Your task to perform on an android device: toggle priority inbox in the gmail app Image 0: 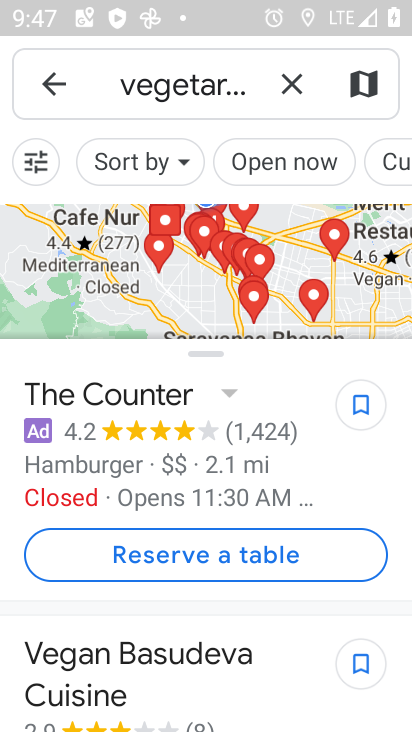
Step 0: press home button
Your task to perform on an android device: toggle priority inbox in the gmail app Image 1: 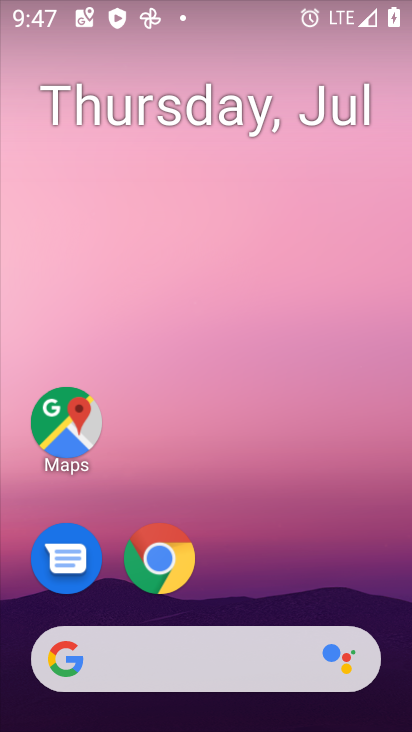
Step 1: drag from (363, 551) to (336, 41)
Your task to perform on an android device: toggle priority inbox in the gmail app Image 2: 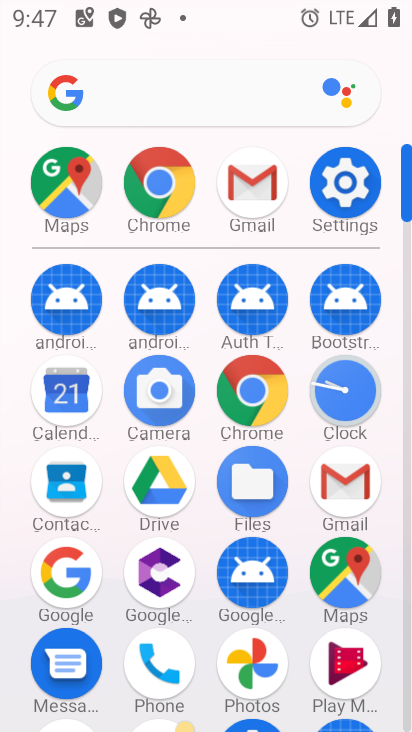
Step 2: click (334, 476)
Your task to perform on an android device: toggle priority inbox in the gmail app Image 3: 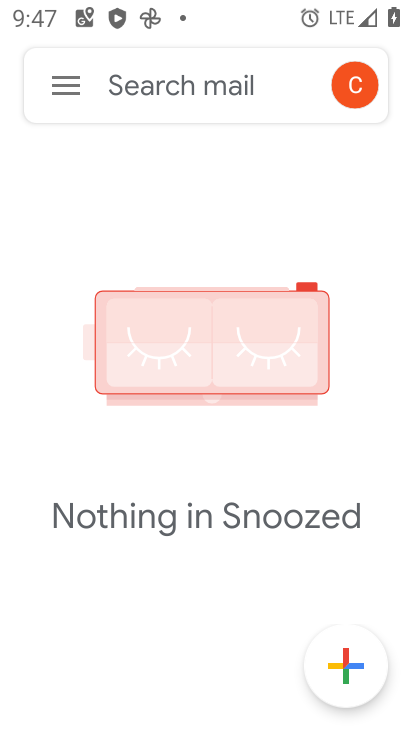
Step 3: click (75, 93)
Your task to perform on an android device: toggle priority inbox in the gmail app Image 4: 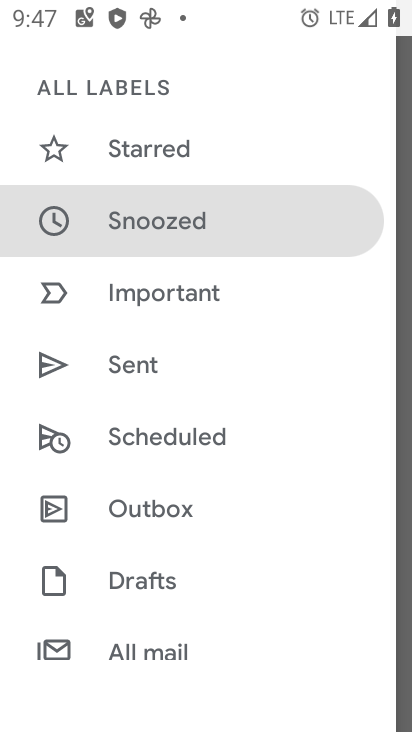
Step 4: drag from (315, 495) to (330, 349)
Your task to perform on an android device: toggle priority inbox in the gmail app Image 5: 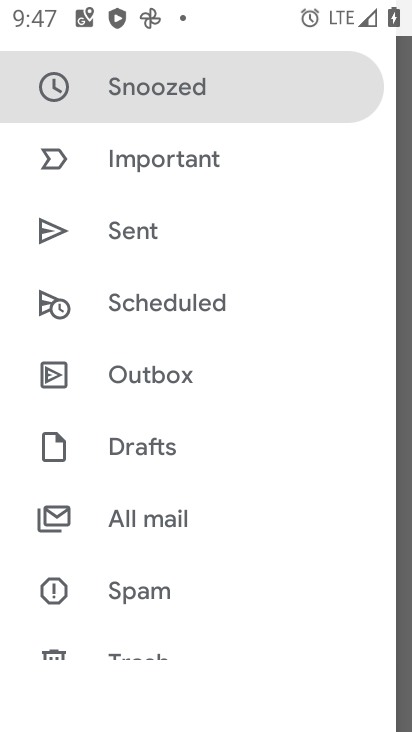
Step 5: drag from (314, 519) to (318, 397)
Your task to perform on an android device: toggle priority inbox in the gmail app Image 6: 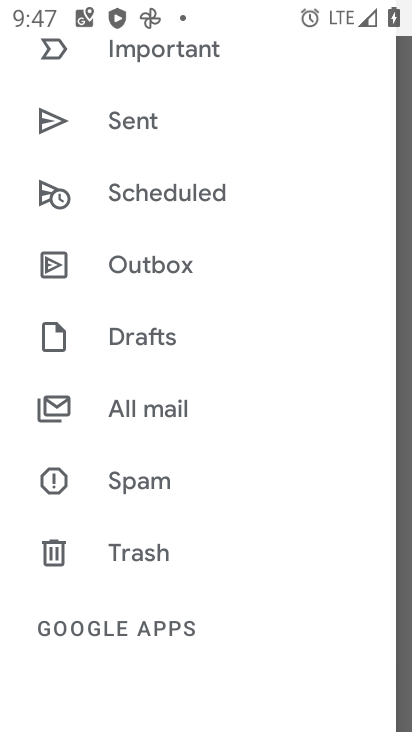
Step 6: drag from (296, 536) to (304, 428)
Your task to perform on an android device: toggle priority inbox in the gmail app Image 7: 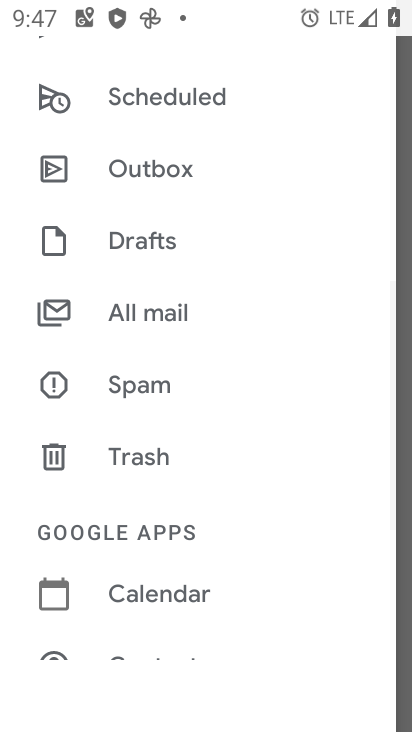
Step 7: drag from (288, 563) to (293, 443)
Your task to perform on an android device: toggle priority inbox in the gmail app Image 8: 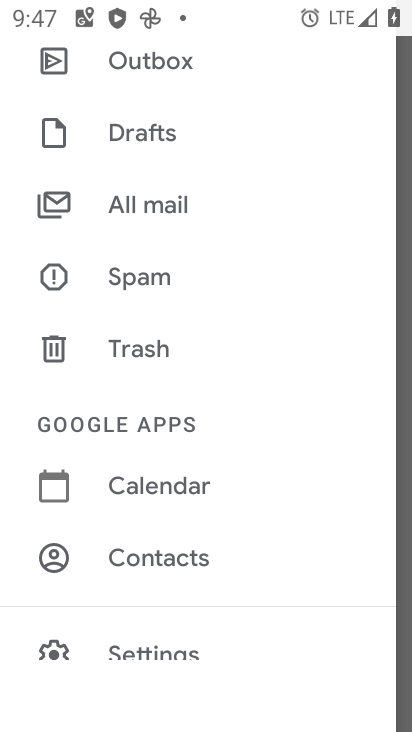
Step 8: drag from (277, 575) to (284, 463)
Your task to perform on an android device: toggle priority inbox in the gmail app Image 9: 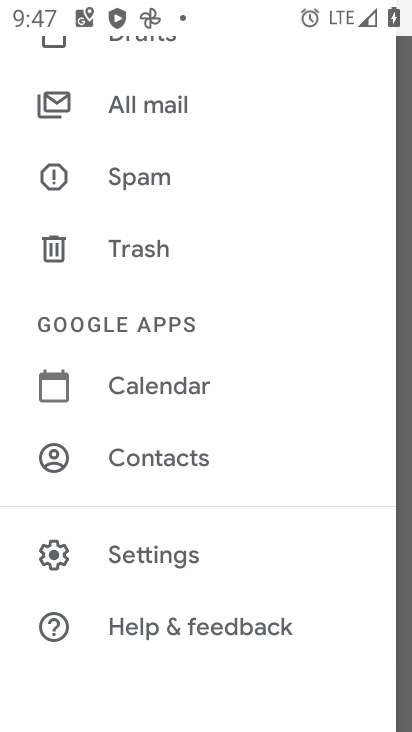
Step 9: click (192, 554)
Your task to perform on an android device: toggle priority inbox in the gmail app Image 10: 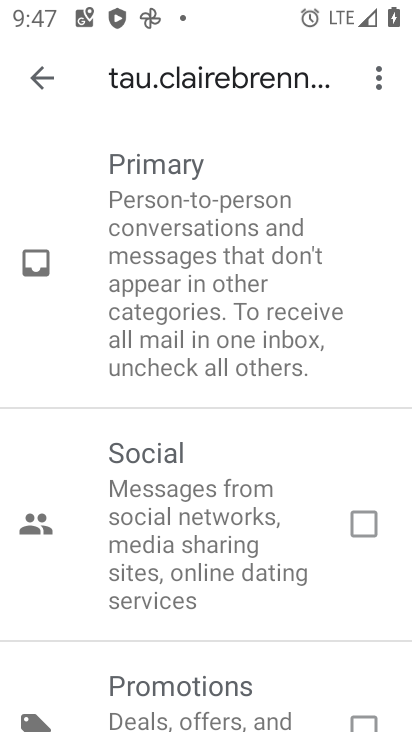
Step 10: drag from (296, 607) to (300, 551)
Your task to perform on an android device: toggle priority inbox in the gmail app Image 11: 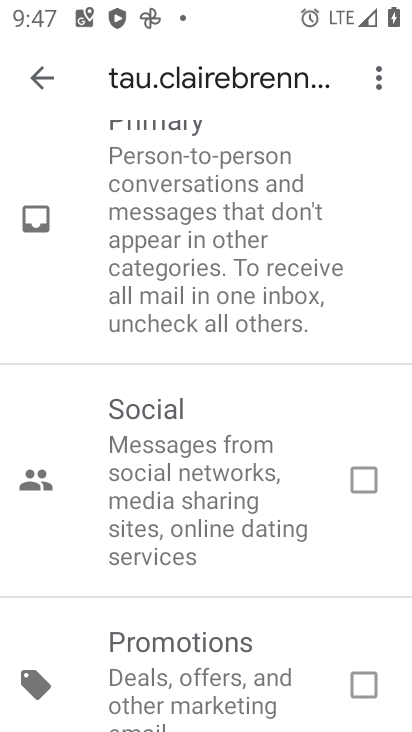
Step 11: press back button
Your task to perform on an android device: toggle priority inbox in the gmail app Image 12: 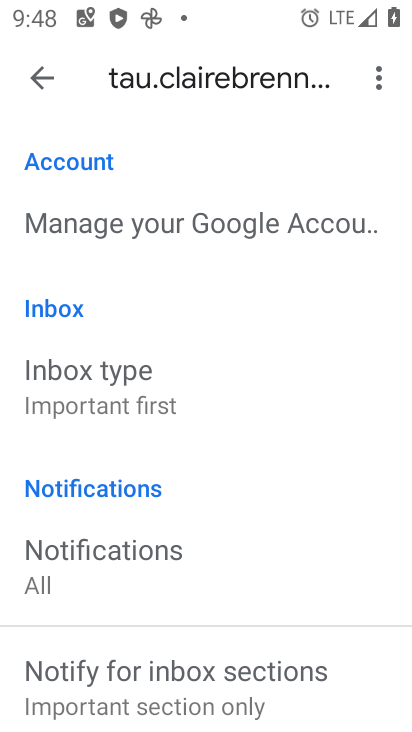
Step 12: drag from (321, 539) to (318, 401)
Your task to perform on an android device: toggle priority inbox in the gmail app Image 13: 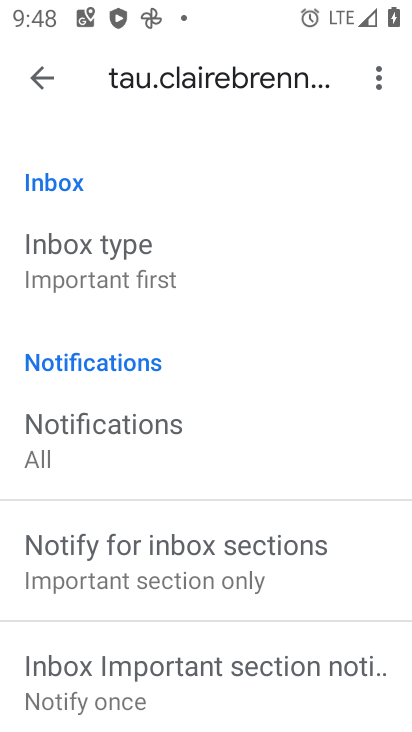
Step 13: drag from (341, 560) to (347, 457)
Your task to perform on an android device: toggle priority inbox in the gmail app Image 14: 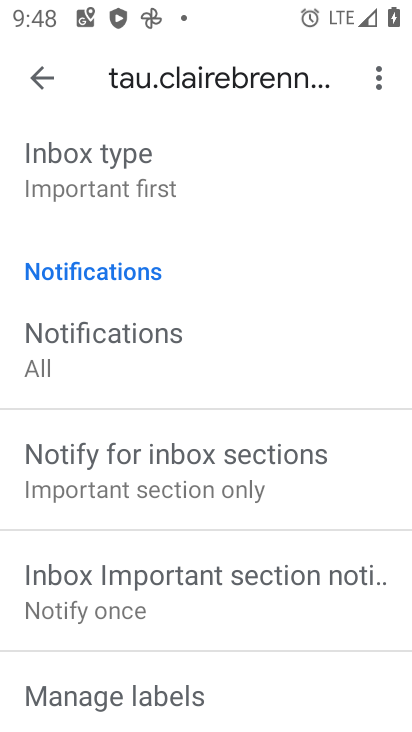
Step 14: drag from (320, 595) to (320, 497)
Your task to perform on an android device: toggle priority inbox in the gmail app Image 15: 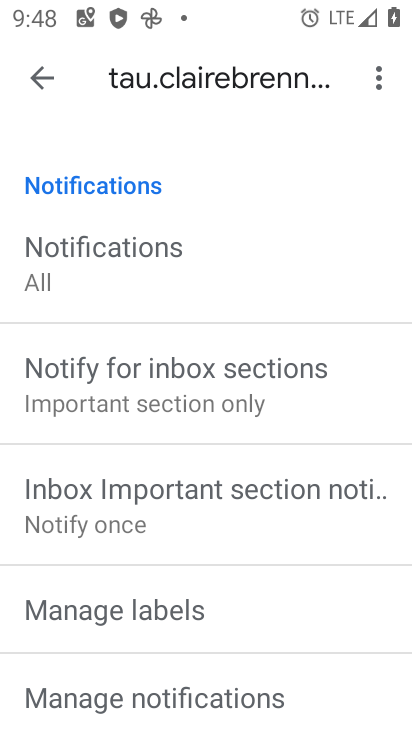
Step 15: drag from (313, 583) to (314, 503)
Your task to perform on an android device: toggle priority inbox in the gmail app Image 16: 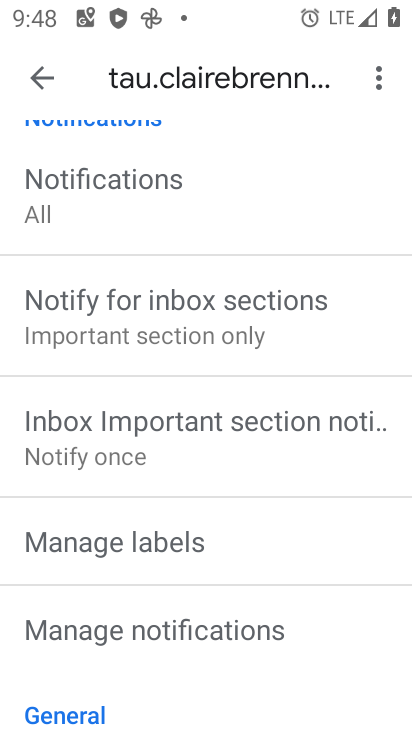
Step 16: drag from (330, 291) to (332, 382)
Your task to perform on an android device: toggle priority inbox in the gmail app Image 17: 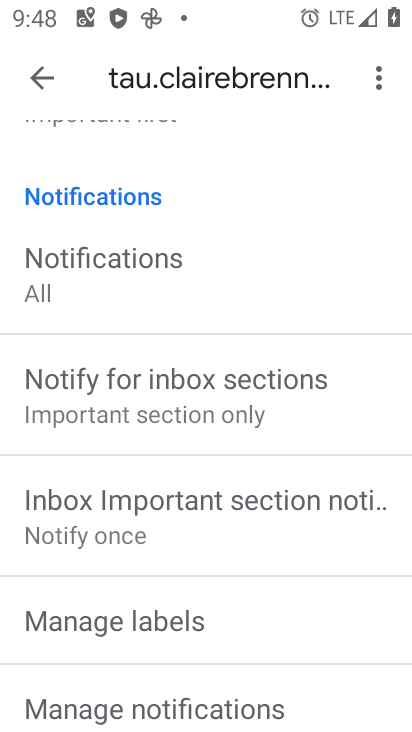
Step 17: drag from (332, 248) to (330, 378)
Your task to perform on an android device: toggle priority inbox in the gmail app Image 18: 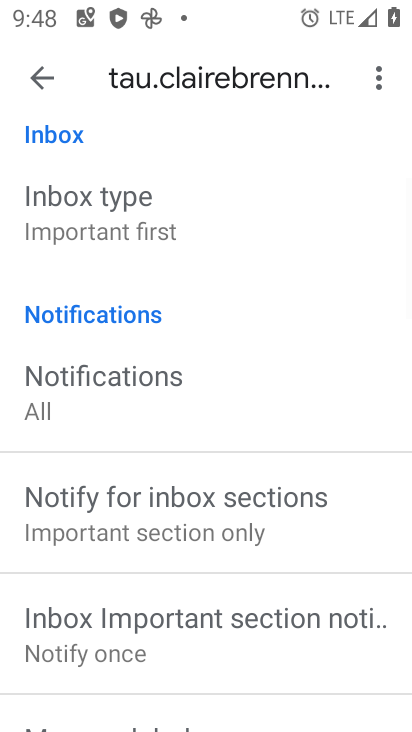
Step 18: drag from (314, 228) to (313, 447)
Your task to perform on an android device: toggle priority inbox in the gmail app Image 19: 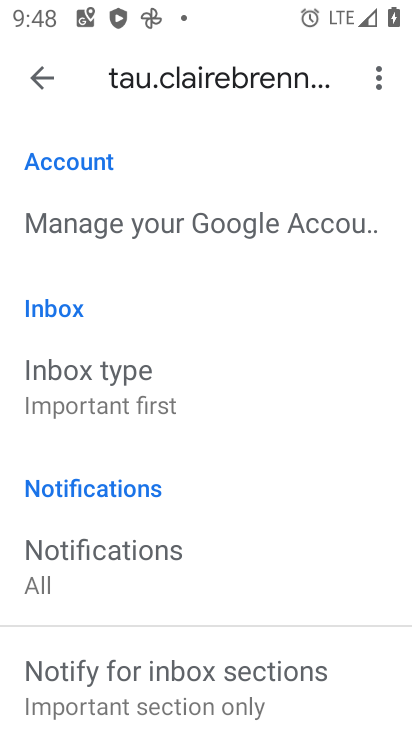
Step 19: click (186, 403)
Your task to perform on an android device: toggle priority inbox in the gmail app Image 20: 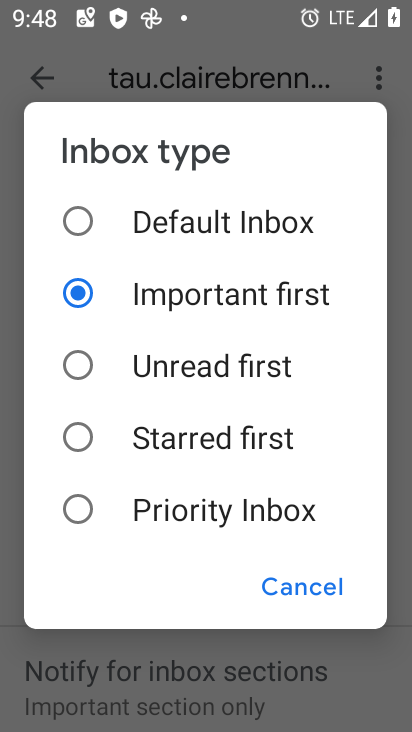
Step 20: click (195, 503)
Your task to perform on an android device: toggle priority inbox in the gmail app Image 21: 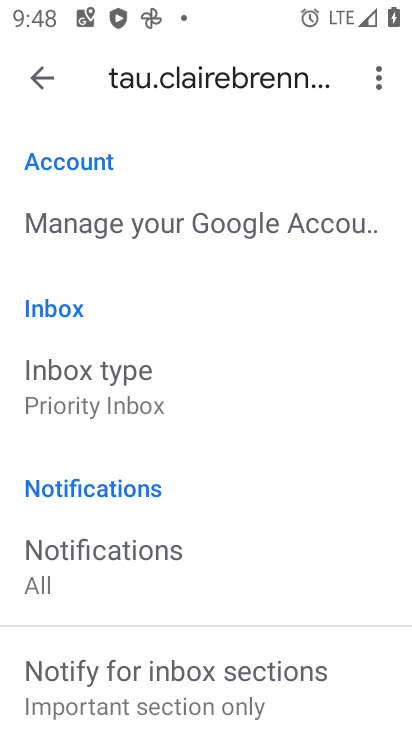
Step 21: task complete